Your task to perform on an android device: add a contact Image 0: 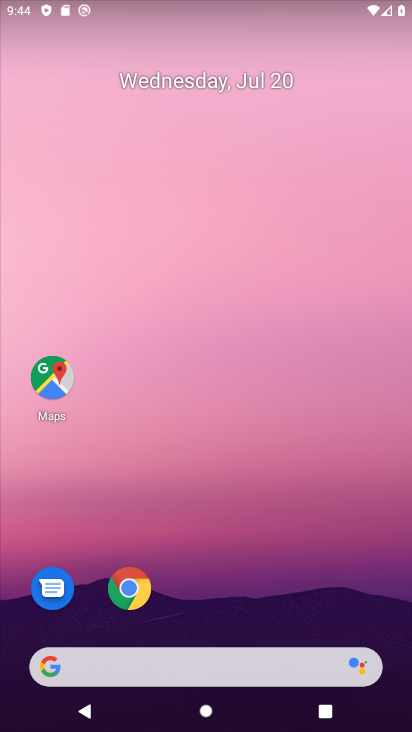
Step 0: drag from (302, 607) to (289, 162)
Your task to perform on an android device: add a contact Image 1: 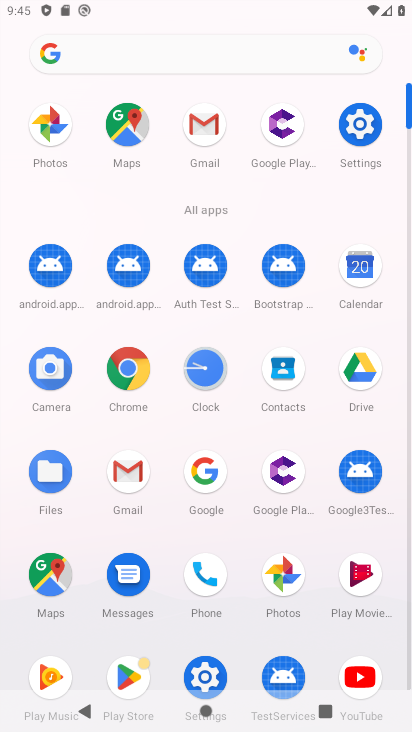
Step 1: click (282, 370)
Your task to perform on an android device: add a contact Image 2: 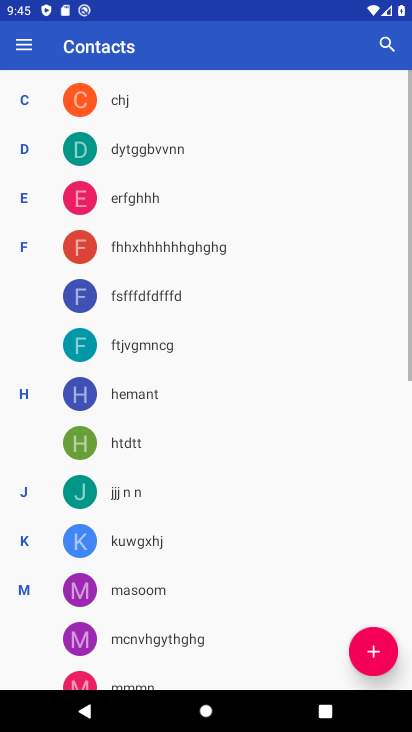
Step 2: click (373, 650)
Your task to perform on an android device: add a contact Image 3: 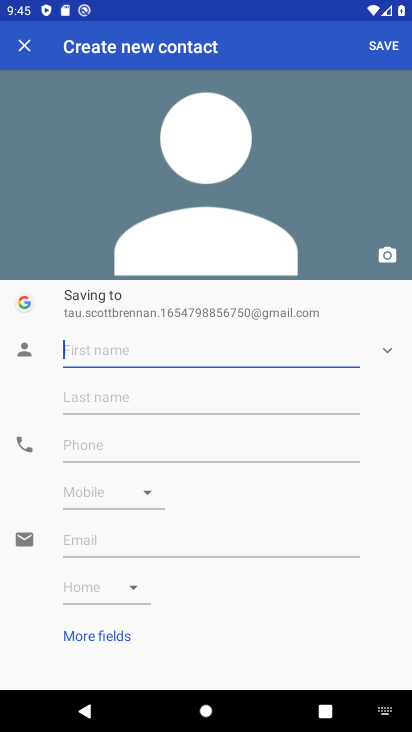
Step 3: type "kjjjoiputf"
Your task to perform on an android device: add a contact Image 4: 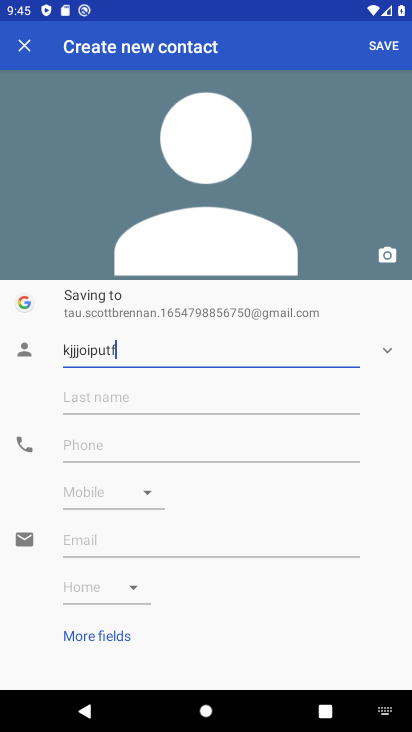
Step 4: click (81, 451)
Your task to perform on an android device: add a contact Image 5: 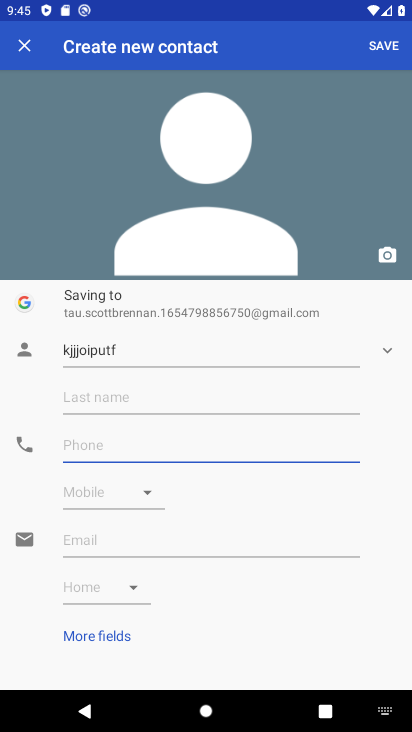
Step 5: type "oipuprr"
Your task to perform on an android device: add a contact Image 6: 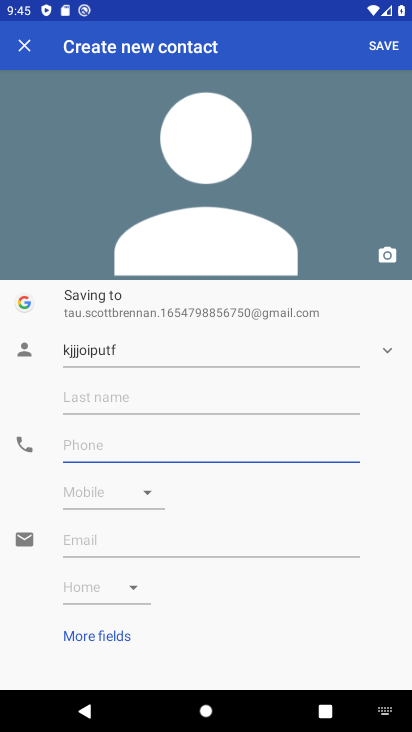
Step 6: click (103, 444)
Your task to perform on an android device: add a contact Image 7: 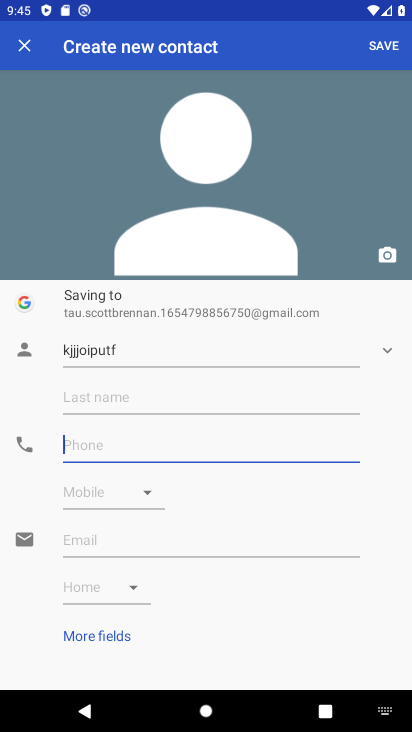
Step 7: type "09968533508"
Your task to perform on an android device: add a contact Image 8: 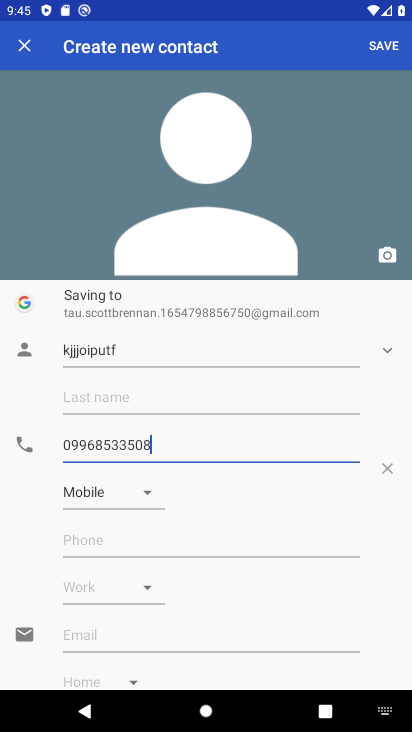
Step 8: click (378, 43)
Your task to perform on an android device: add a contact Image 9: 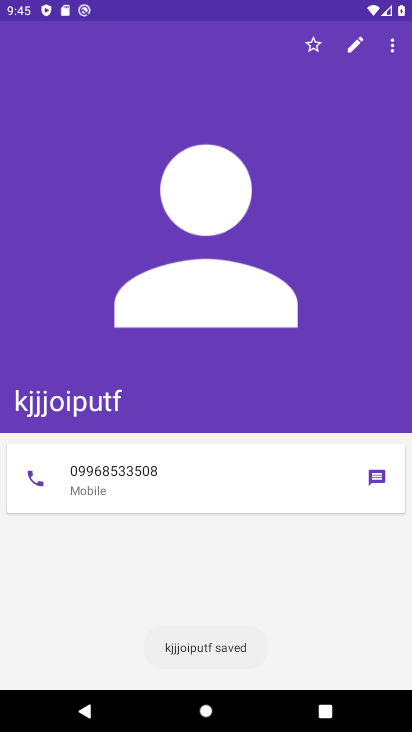
Step 9: task complete